Your task to perform on an android device: turn off improve location accuracy Image 0: 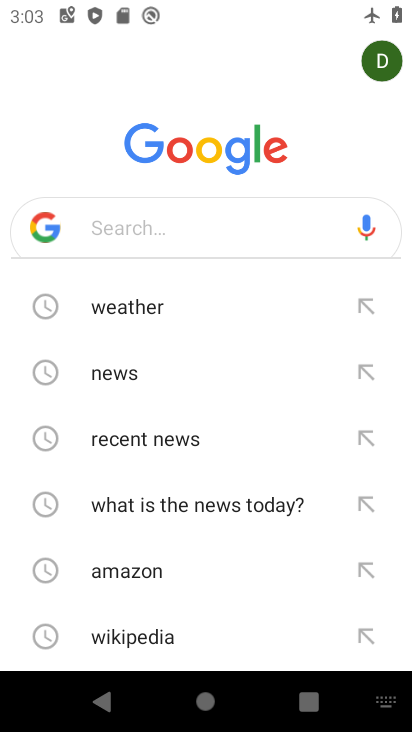
Step 0: press home button
Your task to perform on an android device: turn off improve location accuracy Image 1: 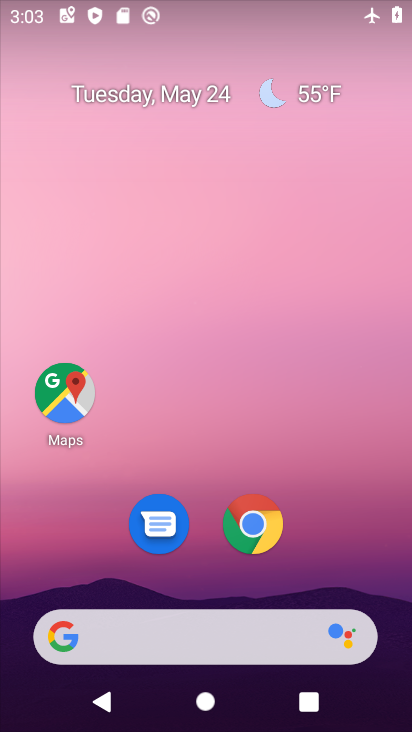
Step 1: drag from (346, 518) to (337, 43)
Your task to perform on an android device: turn off improve location accuracy Image 2: 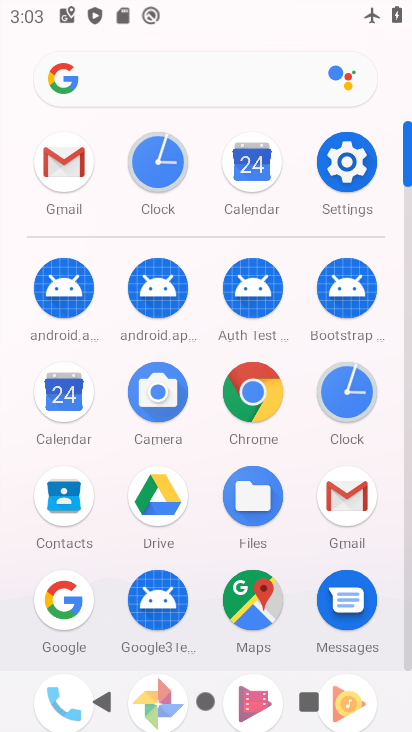
Step 2: click (337, 146)
Your task to perform on an android device: turn off improve location accuracy Image 3: 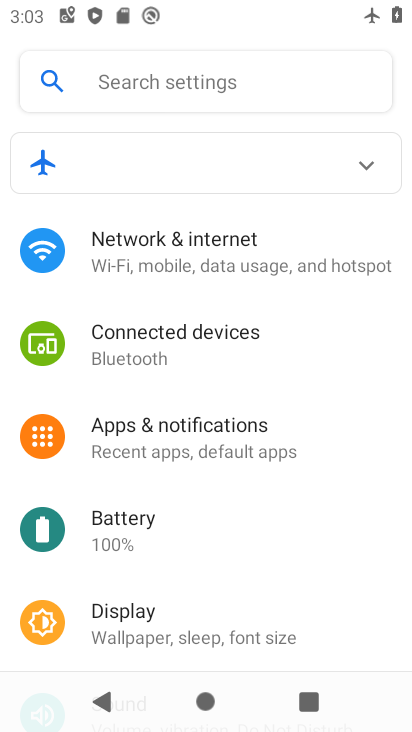
Step 3: drag from (280, 532) to (305, 135)
Your task to perform on an android device: turn off improve location accuracy Image 4: 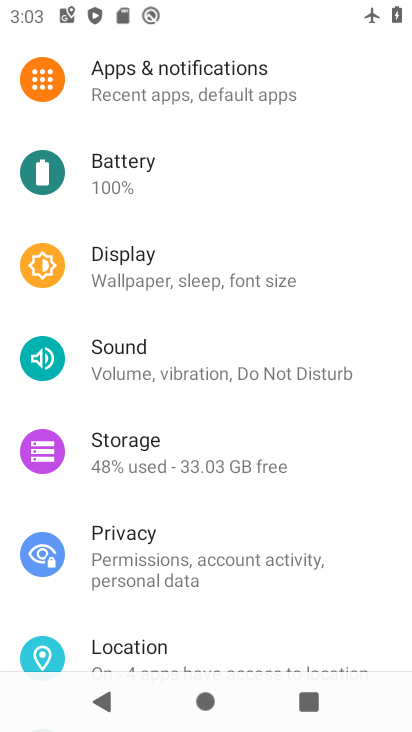
Step 4: click (203, 649)
Your task to perform on an android device: turn off improve location accuracy Image 5: 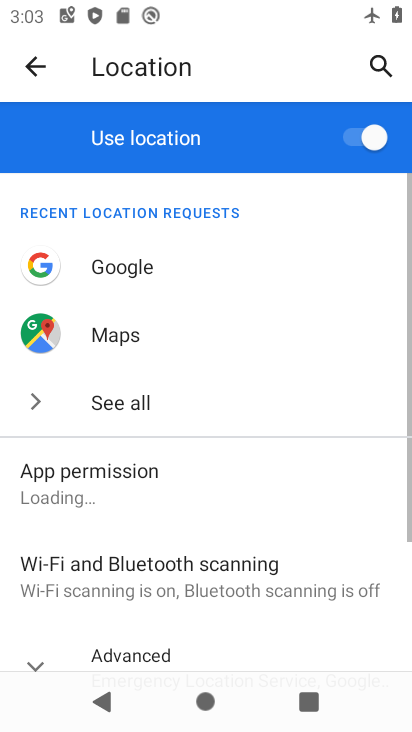
Step 5: drag from (260, 501) to (319, 121)
Your task to perform on an android device: turn off improve location accuracy Image 6: 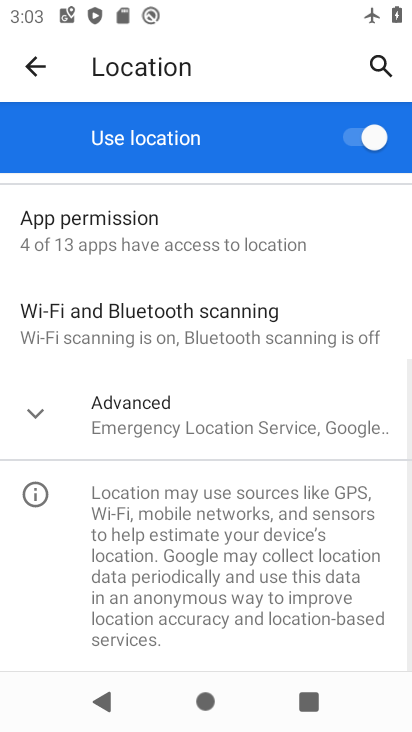
Step 6: click (41, 410)
Your task to perform on an android device: turn off improve location accuracy Image 7: 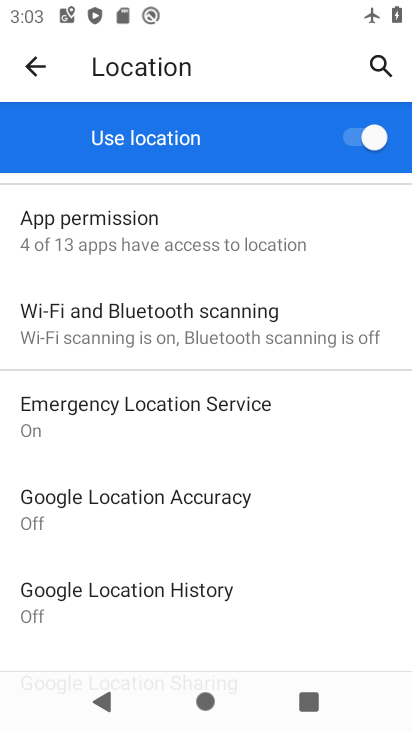
Step 7: click (130, 500)
Your task to perform on an android device: turn off improve location accuracy Image 8: 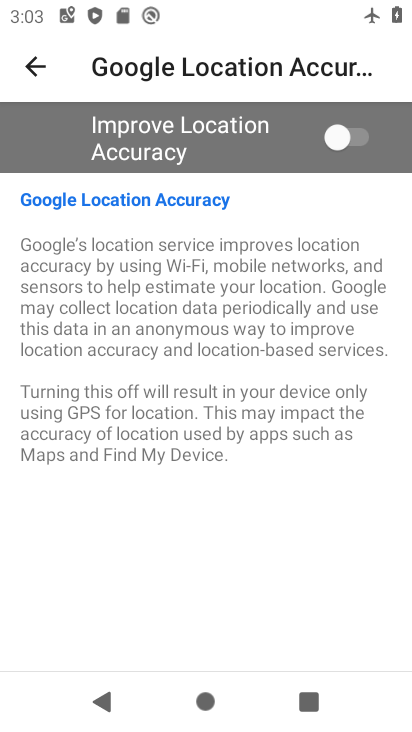
Step 8: task complete